Your task to perform on an android device: open app "Spotify" (install if not already installed) and go to login screen Image 0: 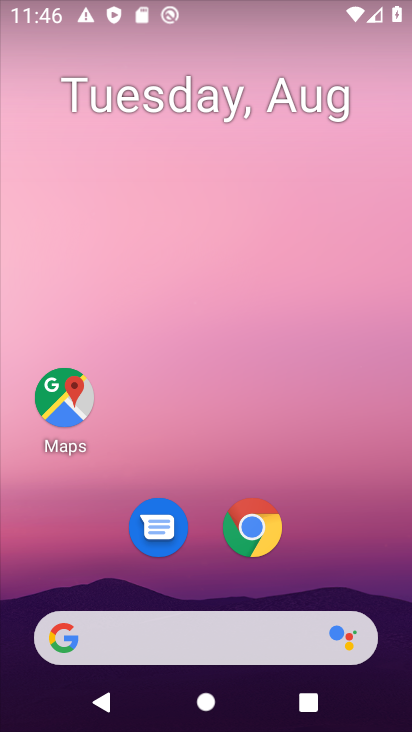
Step 0: drag from (210, 556) to (255, 148)
Your task to perform on an android device: open app "Spotify" (install if not already installed) and go to login screen Image 1: 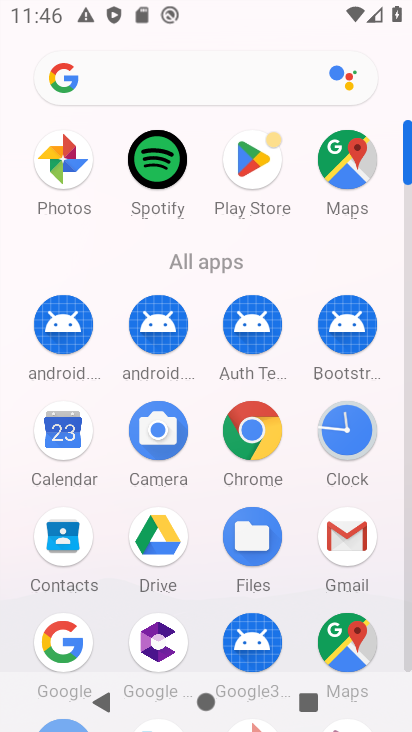
Step 1: click (253, 160)
Your task to perform on an android device: open app "Spotify" (install if not already installed) and go to login screen Image 2: 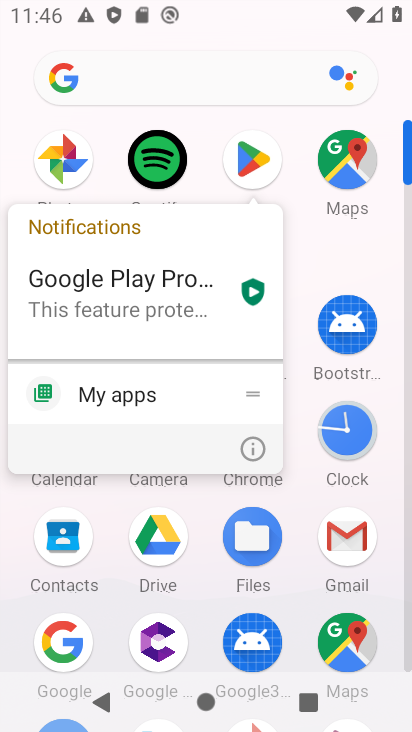
Step 2: click (260, 161)
Your task to perform on an android device: open app "Spotify" (install if not already installed) and go to login screen Image 3: 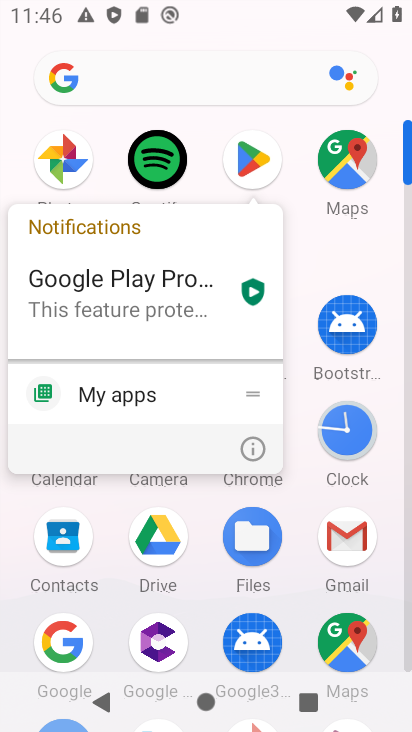
Step 3: click (171, 164)
Your task to perform on an android device: open app "Spotify" (install if not already installed) and go to login screen Image 4: 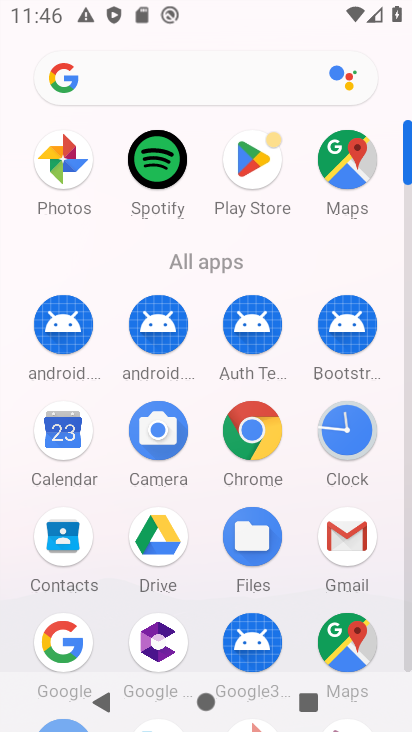
Step 4: click (168, 157)
Your task to perform on an android device: open app "Spotify" (install if not already installed) and go to login screen Image 5: 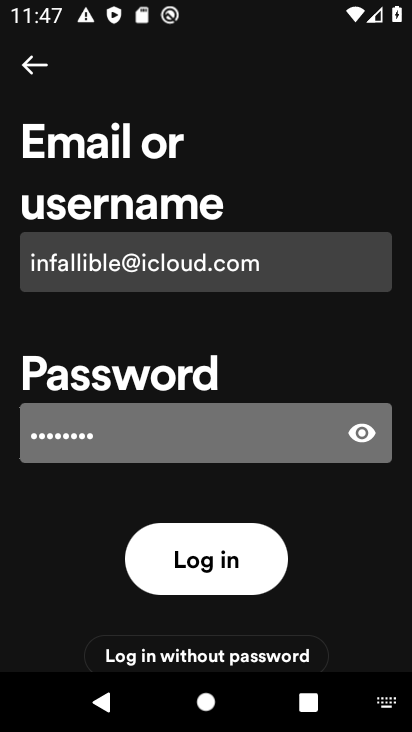
Step 5: task complete